Your task to perform on an android device: Open Android settings Image 0: 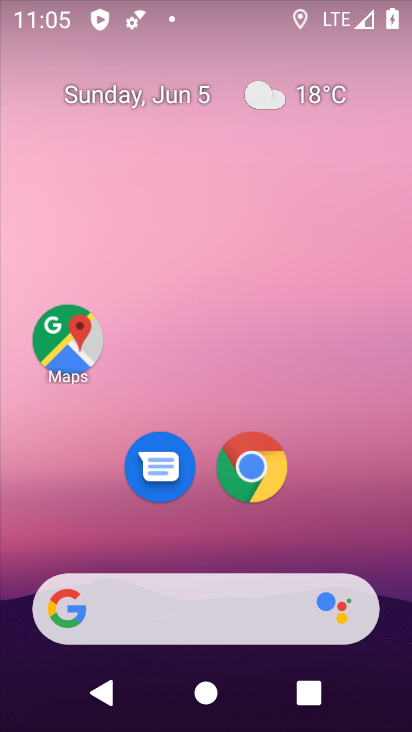
Step 0: drag from (219, 565) to (206, 14)
Your task to perform on an android device: Open Android settings Image 1: 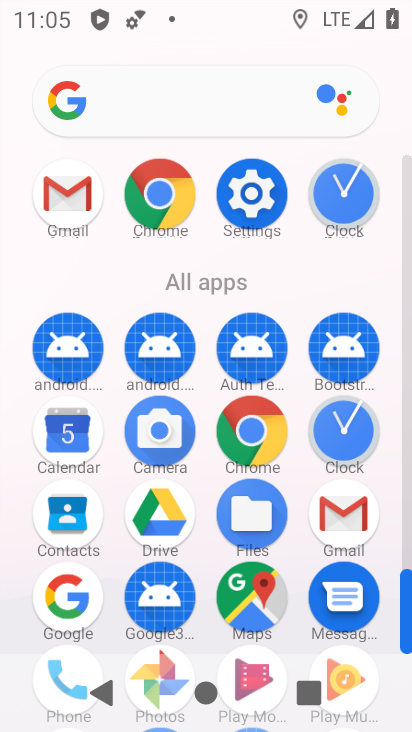
Step 1: click (236, 171)
Your task to perform on an android device: Open Android settings Image 2: 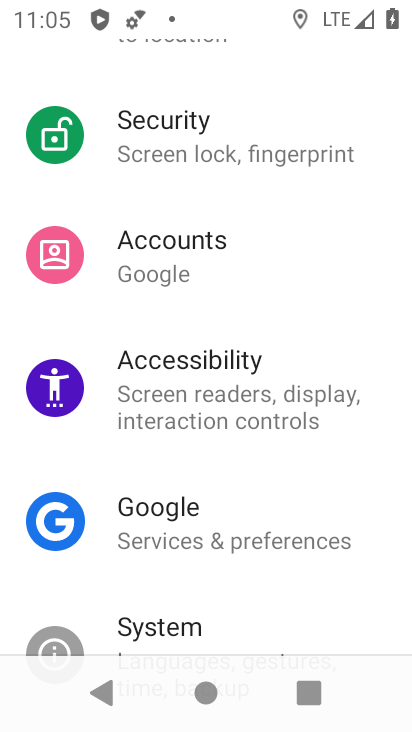
Step 2: task complete